Your task to perform on an android device: Search for sushi restaurants on Maps Image 0: 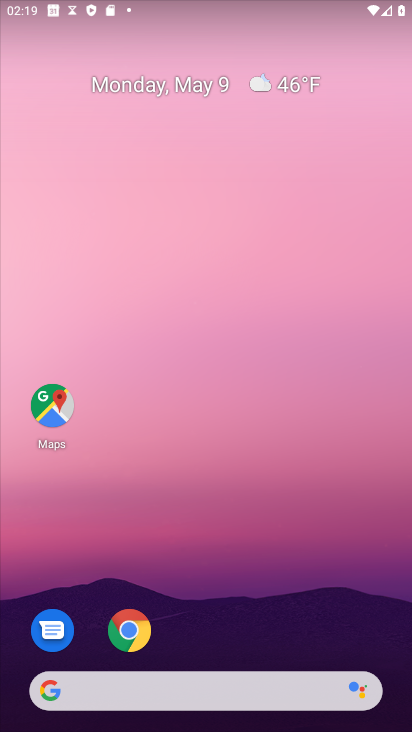
Step 0: click (50, 406)
Your task to perform on an android device: Search for sushi restaurants on Maps Image 1: 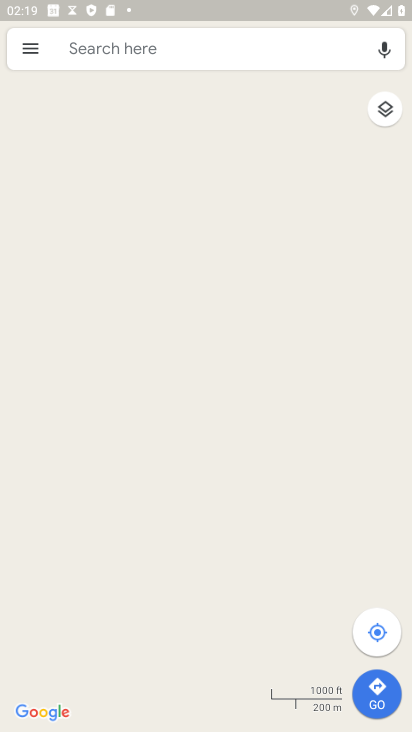
Step 1: click (186, 49)
Your task to perform on an android device: Search for sushi restaurants on Maps Image 2: 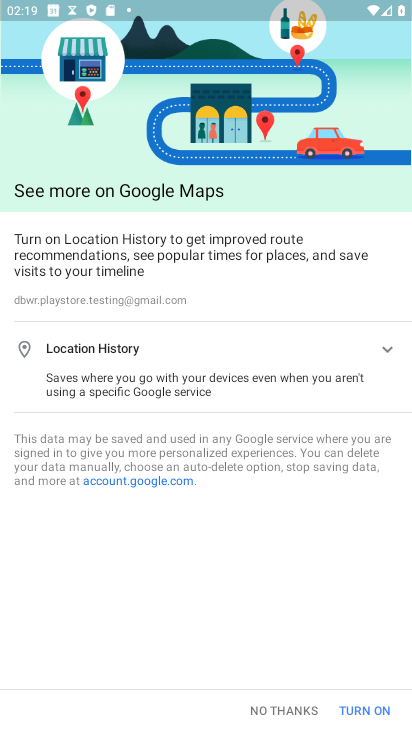
Step 2: click (276, 714)
Your task to perform on an android device: Search for sushi restaurants on Maps Image 3: 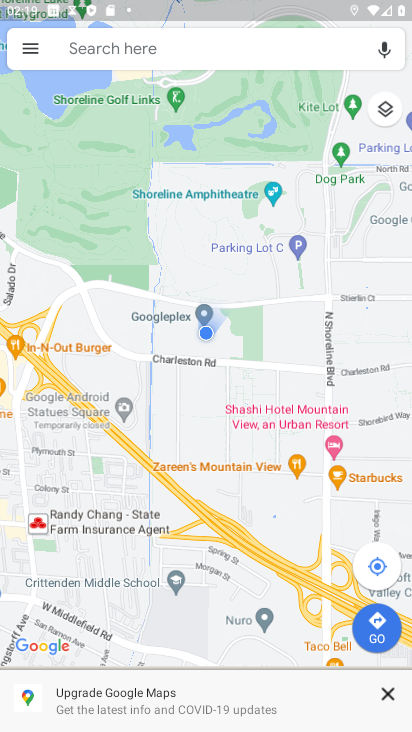
Step 3: click (139, 56)
Your task to perform on an android device: Search for sushi restaurants on Maps Image 4: 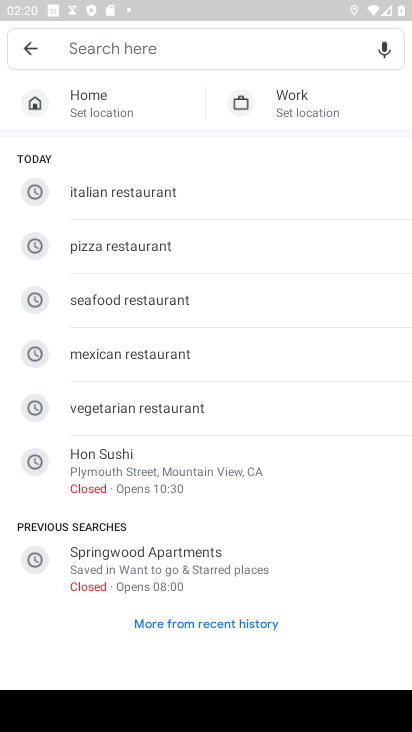
Step 4: type "sushi restaurants"
Your task to perform on an android device: Search for sushi restaurants on Maps Image 5: 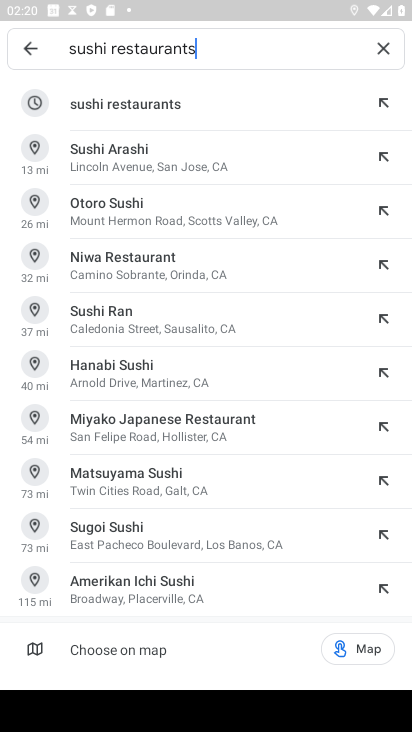
Step 5: click (116, 99)
Your task to perform on an android device: Search for sushi restaurants on Maps Image 6: 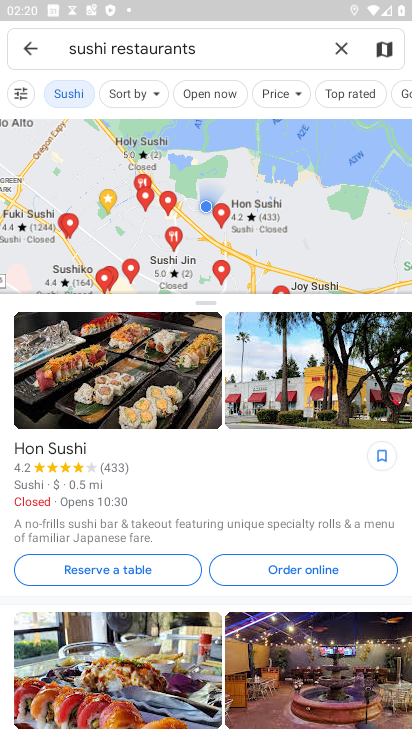
Step 6: task complete